Your task to perform on an android device: Open my contact list Image 0: 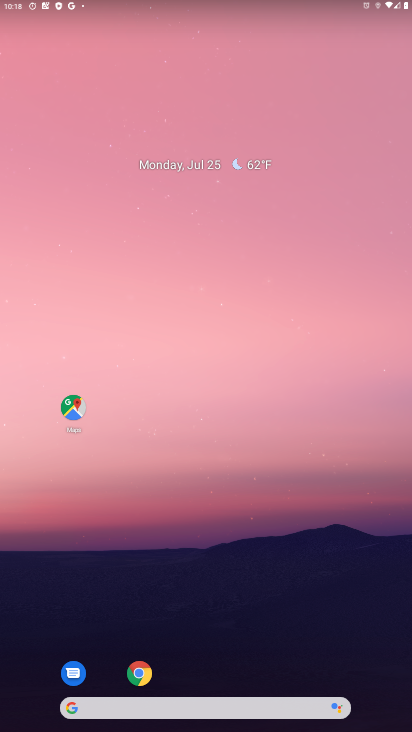
Step 0: drag from (203, 627) to (206, 146)
Your task to perform on an android device: Open my contact list Image 1: 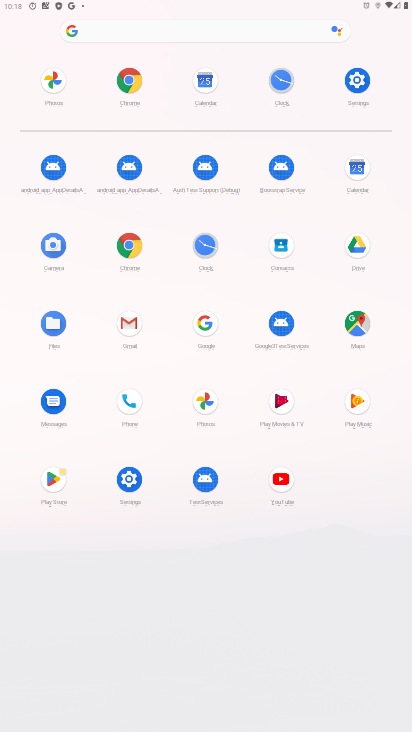
Step 1: click (271, 244)
Your task to perform on an android device: Open my contact list Image 2: 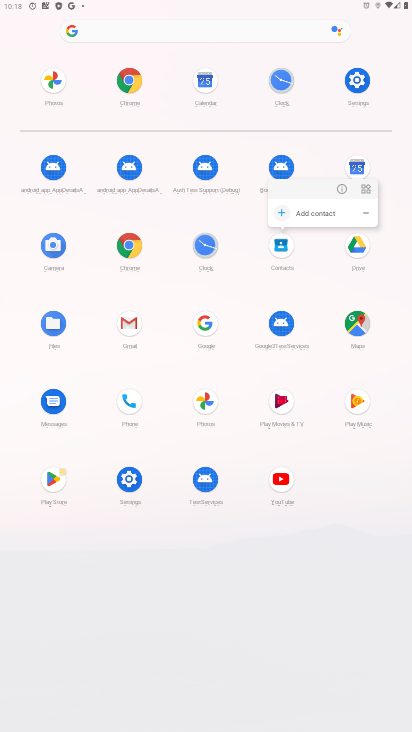
Step 2: click (341, 189)
Your task to perform on an android device: Open my contact list Image 3: 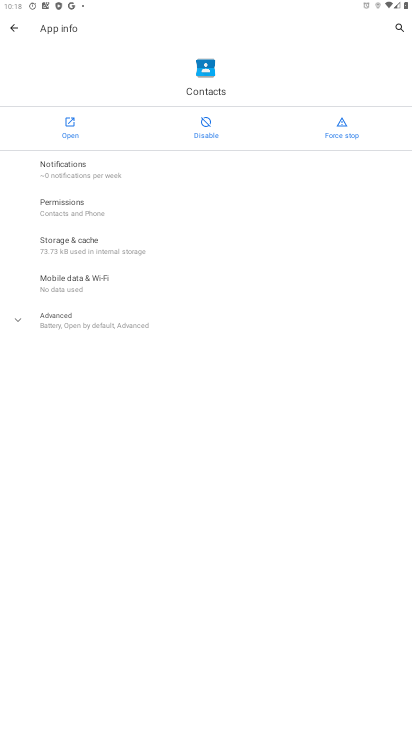
Step 3: click (64, 130)
Your task to perform on an android device: Open my contact list Image 4: 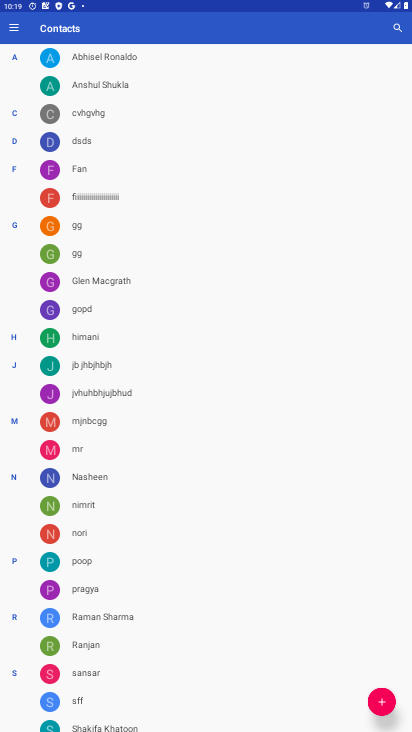
Step 4: task complete